Your task to perform on an android device: turn off sleep mode Image 0: 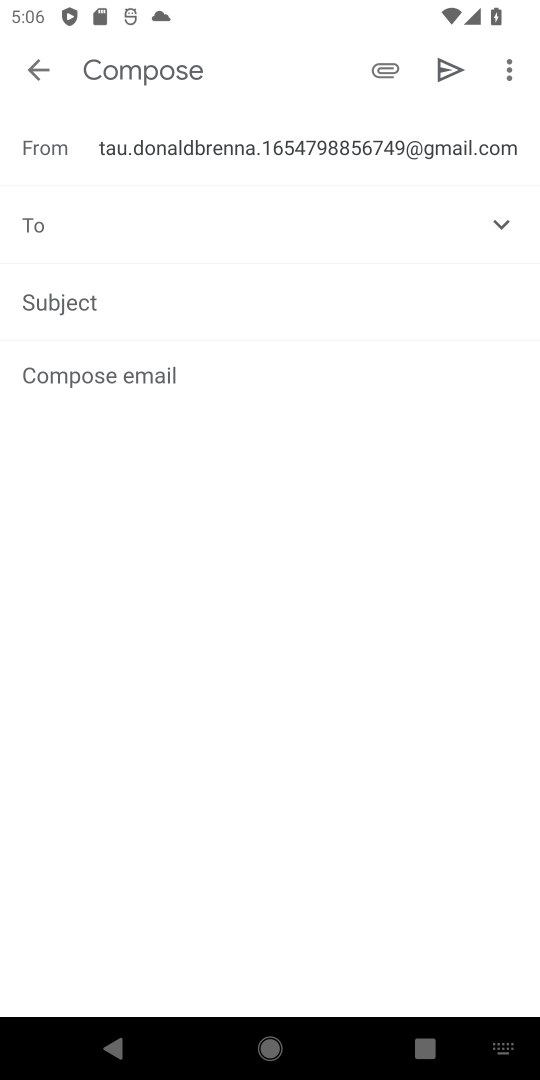
Step 0: press back button
Your task to perform on an android device: turn off sleep mode Image 1: 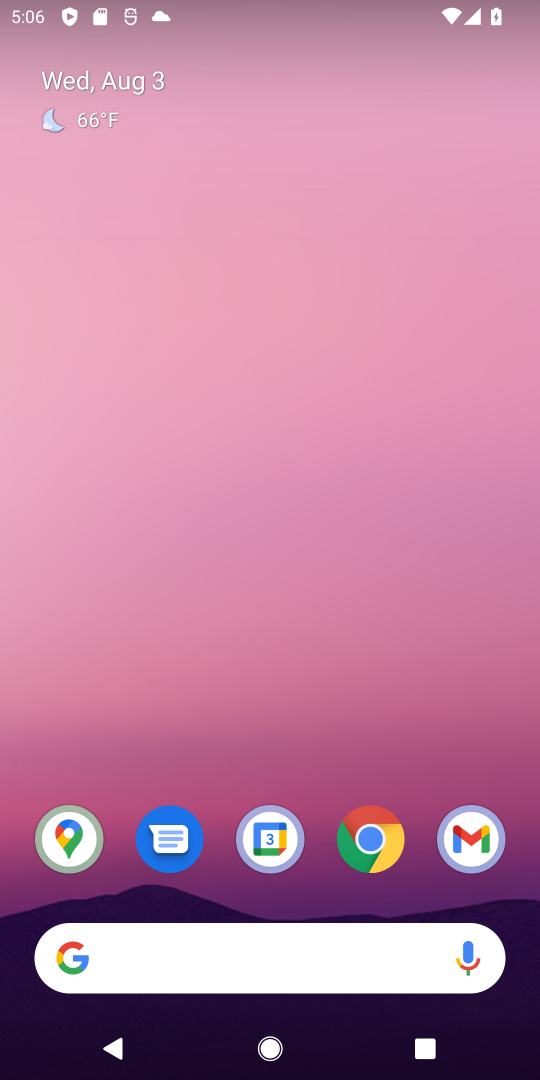
Step 1: drag from (281, 725) to (403, 32)
Your task to perform on an android device: turn off sleep mode Image 2: 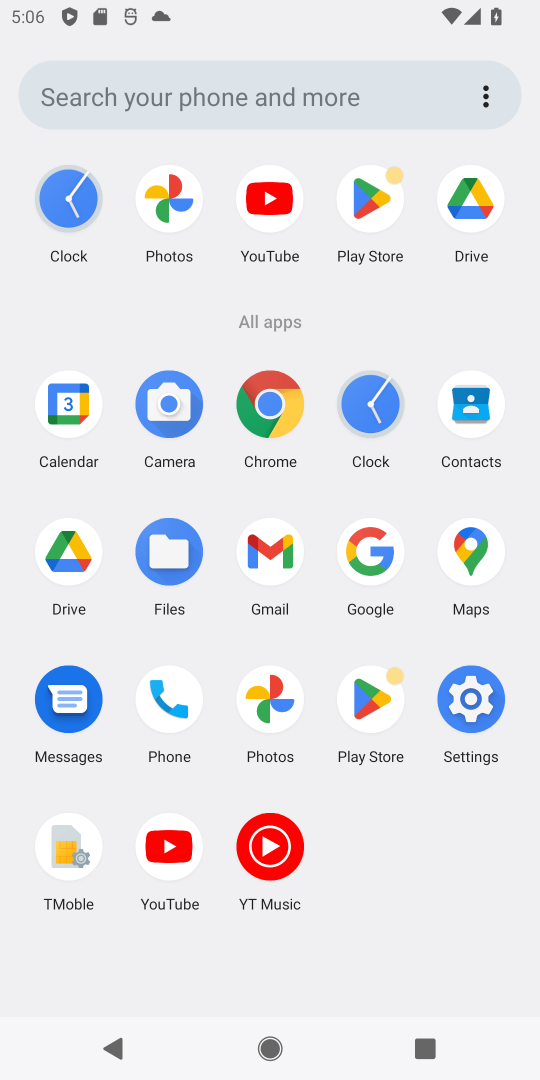
Step 2: click (467, 695)
Your task to perform on an android device: turn off sleep mode Image 3: 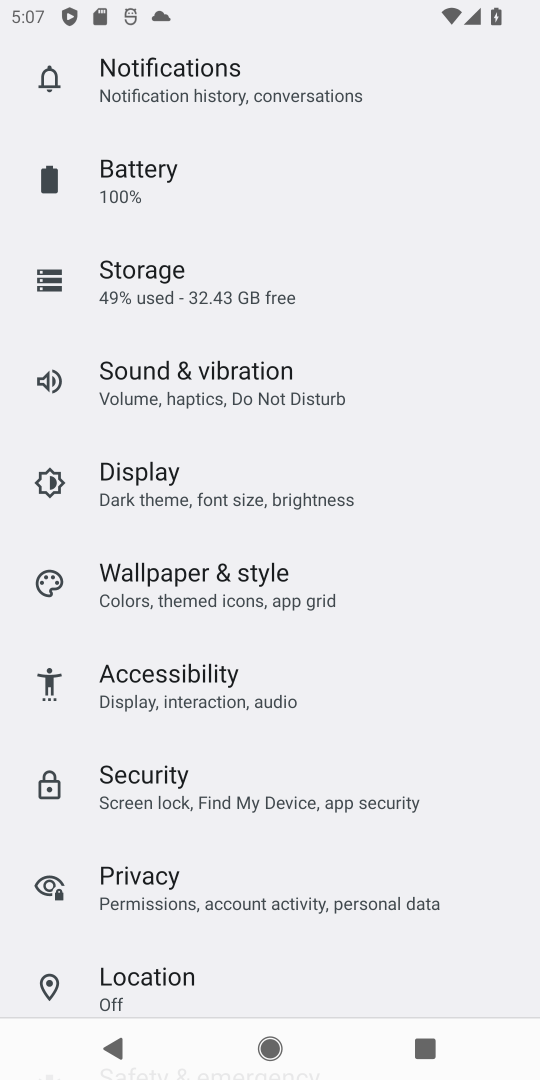
Step 3: drag from (230, 144) to (230, 1000)
Your task to perform on an android device: turn off sleep mode Image 4: 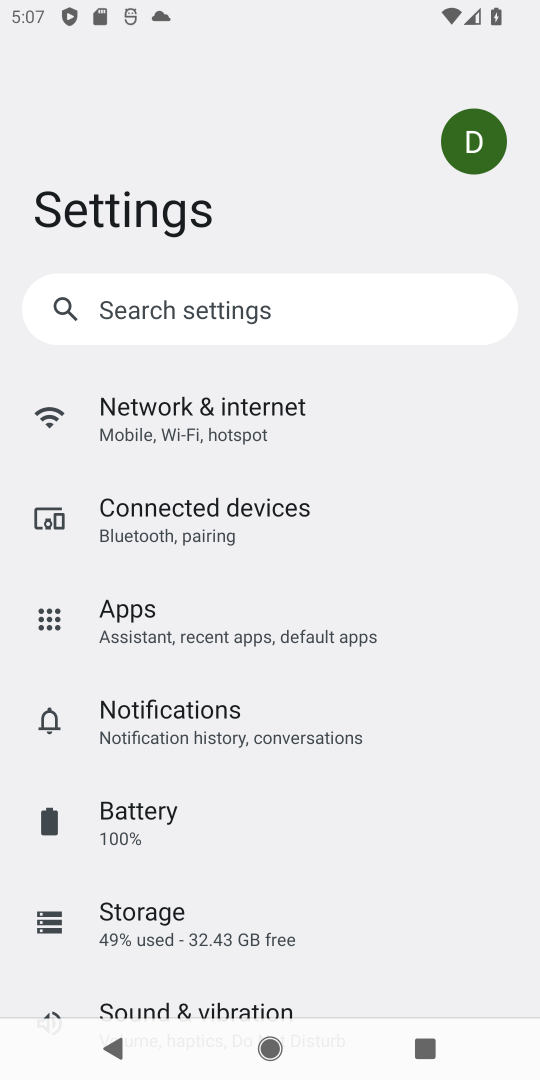
Step 4: click (163, 299)
Your task to perform on an android device: turn off sleep mode Image 5: 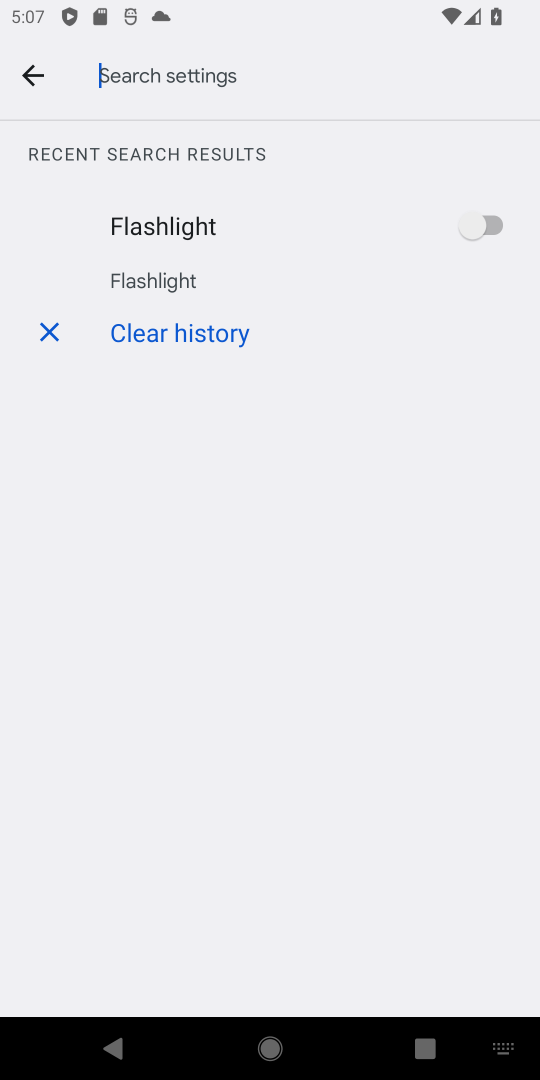
Step 5: type "sleep mode"
Your task to perform on an android device: turn off sleep mode Image 6: 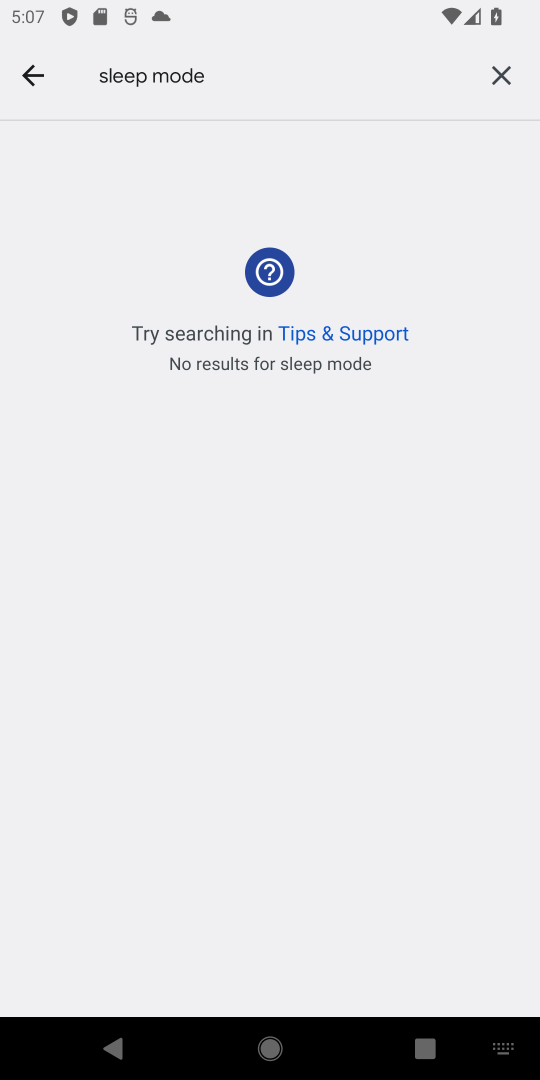
Step 6: task complete